Your task to perform on an android device: check battery use Image 0: 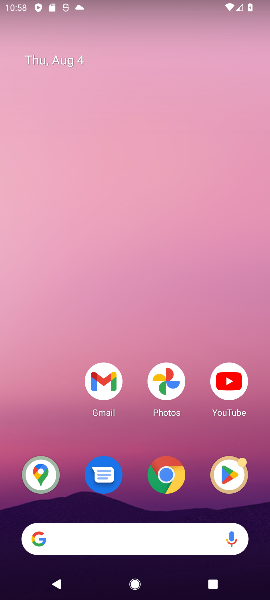
Step 0: drag from (200, 447) to (168, 173)
Your task to perform on an android device: check battery use Image 1: 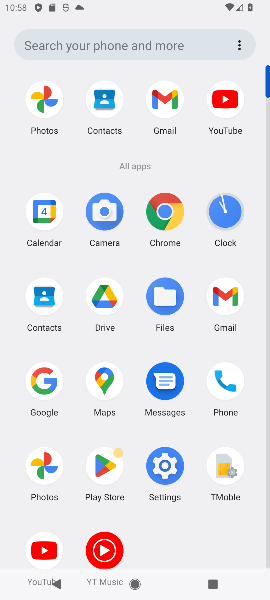
Step 1: click (169, 480)
Your task to perform on an android device: check battery use Image 2: 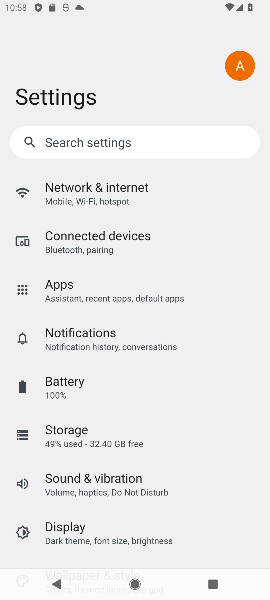
Step 2: click (88, 388)
Your task to perform on an android device: check battery use Image 3: 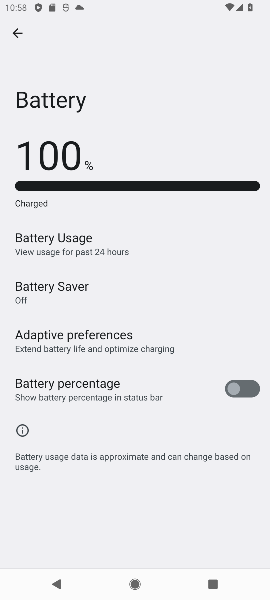
Step 3: task complete